Your task to perform on an android device: Turn on the flashlight Image 0: 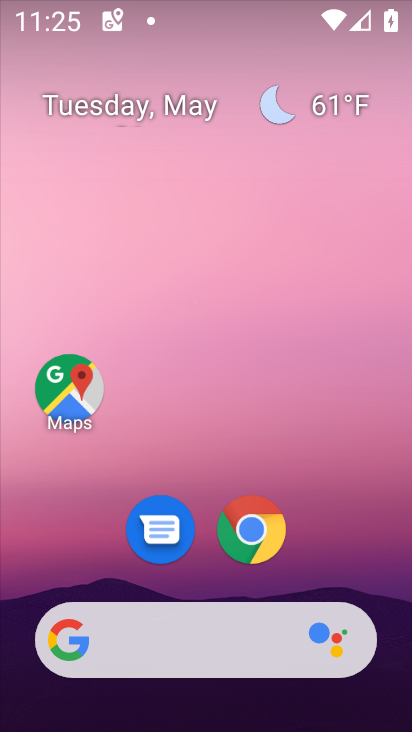
Step 0: drag from (349, 582) to (162, 132)
Your task to perform on an android device: Turn on the flashlight Image 1: 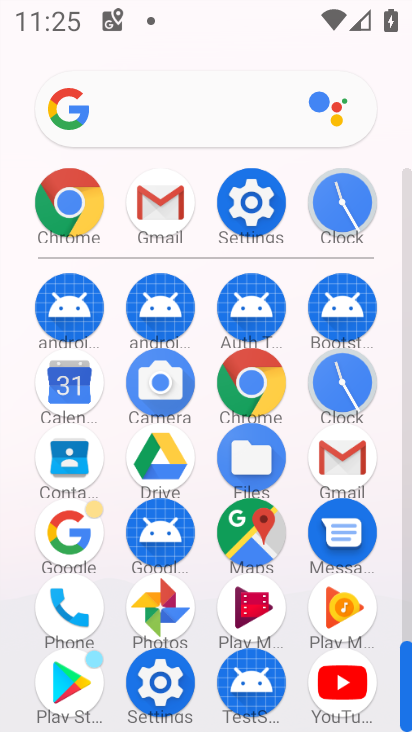
Step 1: click (261, 186)
Your task to perform on an android device: Turn on the flashlight Image 2: 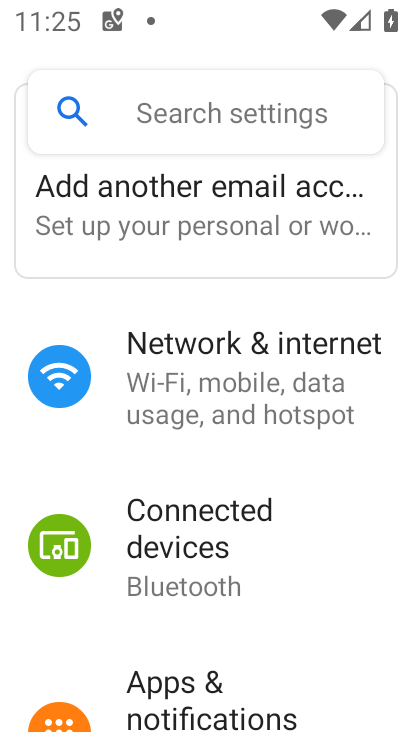
Step 2: click (242, 118)
Your task to perform on an android device: Turn on the flashlight Image 3: 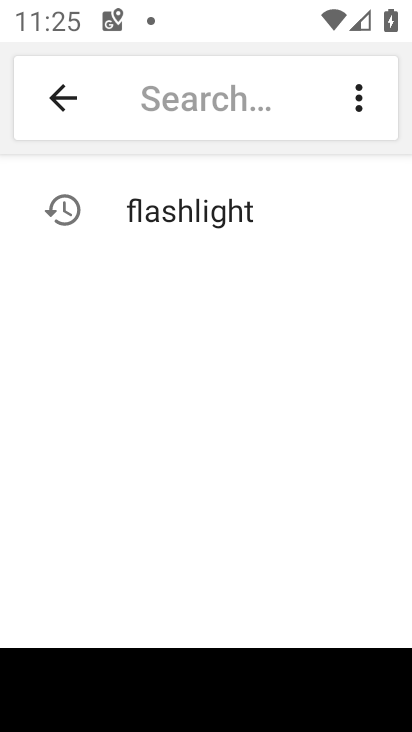
Step 3: click (167, 214)
Your task to perform on an android device: Turn on the flashlight Image 4: 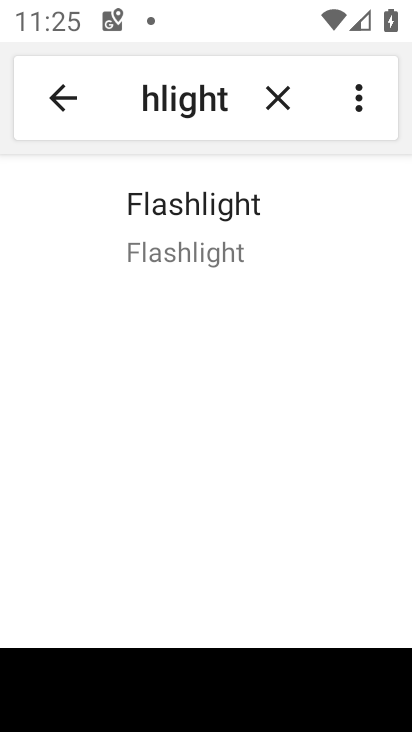
Step 4: click (167, 214)
Your task to perform on an android device: Turn on the flashlight Image 5: 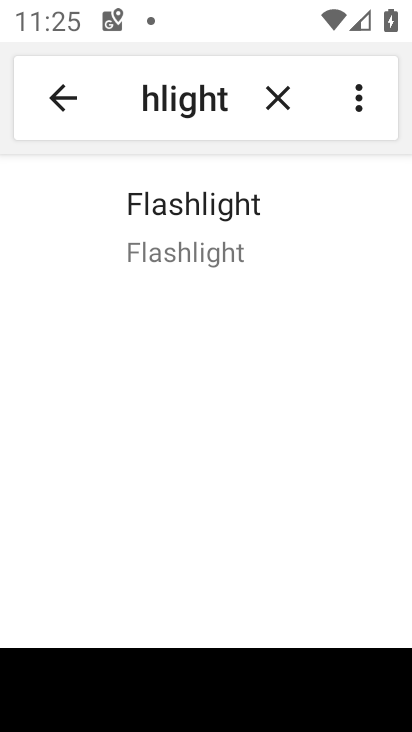
Step 5: click (167, 214)
Your task to perform on an android device: Turn on the flashlight Image 6: 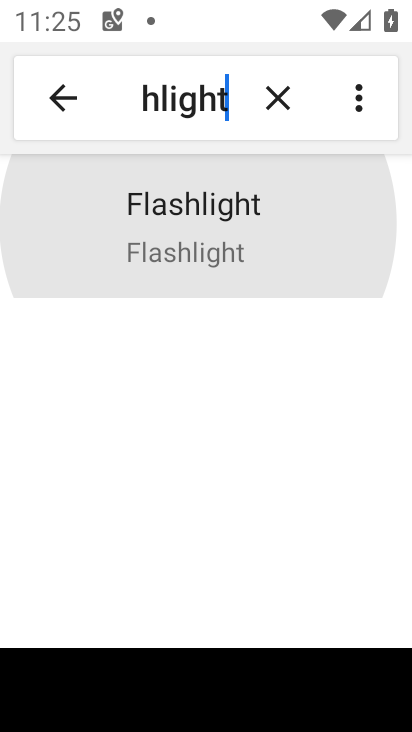
Step 6: click (167, 214)
Your task to perform on an android device: Turn on the flashlight Image 7: 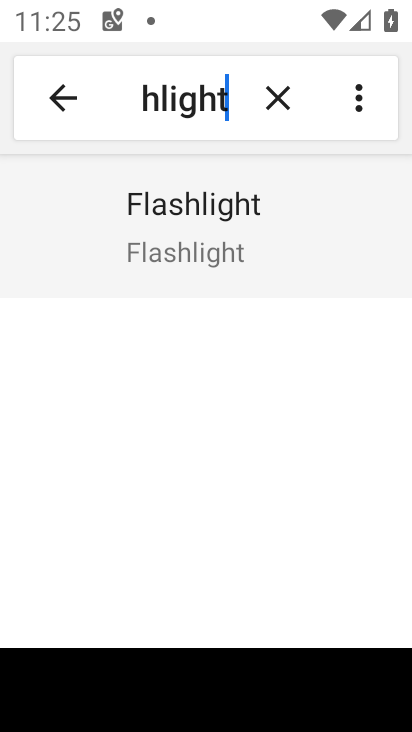
Step 7: click (167, 214)
Your task to perform on an android device: Turn on the flashlight Image 8: 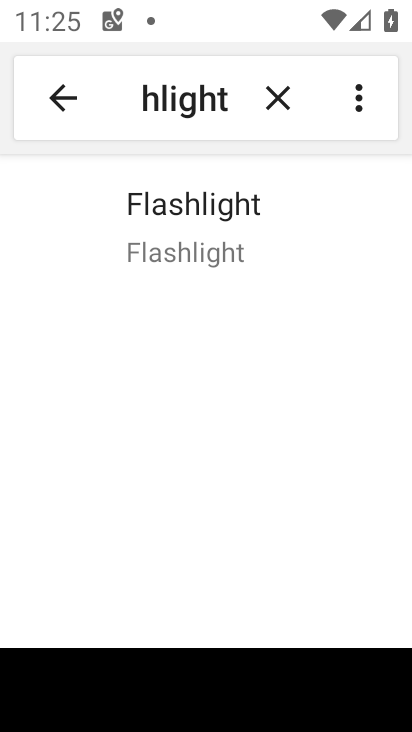
Step 8: click (167, 214)
Your task to perform on an android device: Turn on the flashlight Image 9: 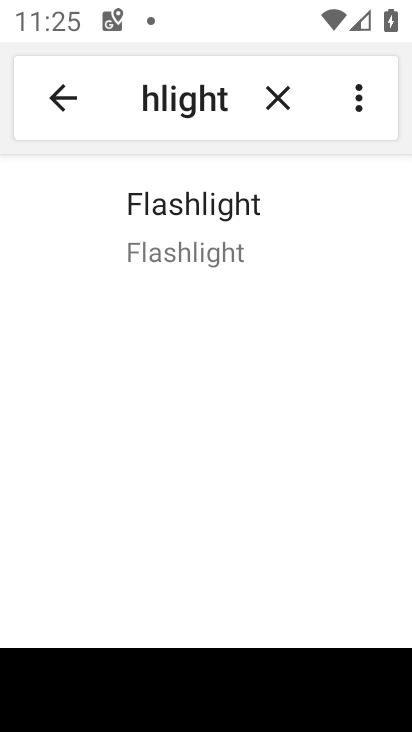
Step 9: task complete